Your task to perform on an android device: find snoozed emails in the gmail app Image 0: 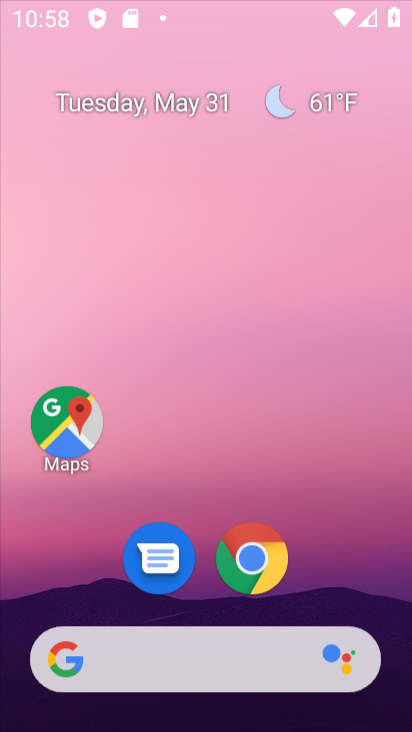
Step 0: click (213, 97)
Your task to perform on an android device: find snoozed emails in the gmail app Image 1: 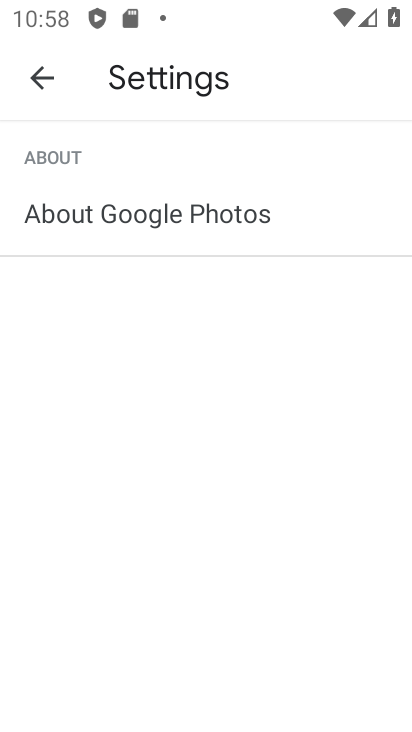
Step 1: press home button
Your task to perform on an android device: find snoozed emails in the gmail app Image 2: 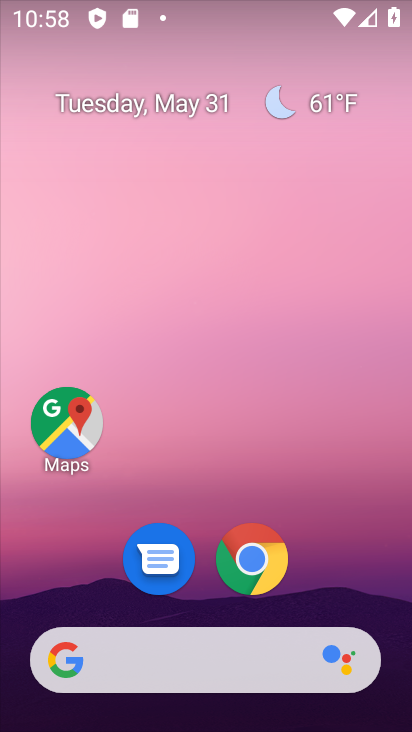
Step 2: drag from (236, 548) to (248, 0)
Your task to perform on an android device: find snoozed emails in the gmail app Image 3: 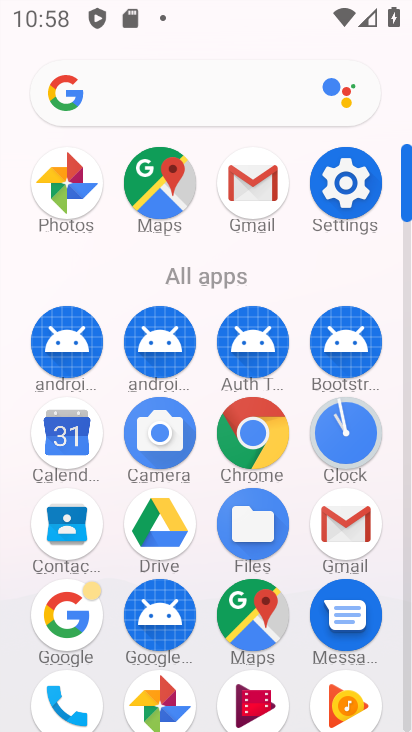
Step 3: click (350, 540)
Your task to perform on an android device: find snoozed emails in the gmail app Image 4: 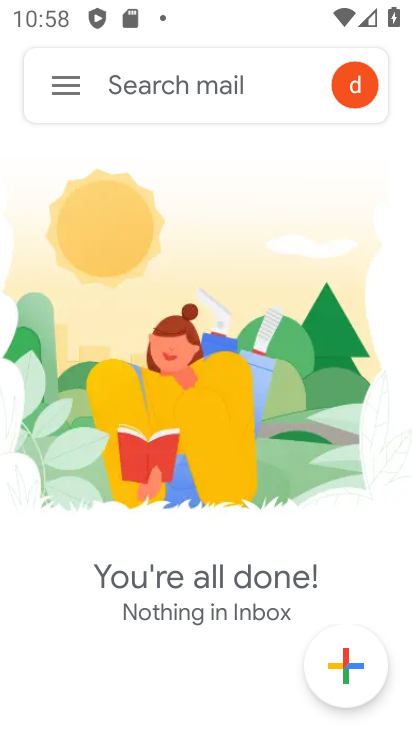
Step 4: click (74, 72)
Your task to perform on an android device: find snoozed emails in the gmail app Image 5: 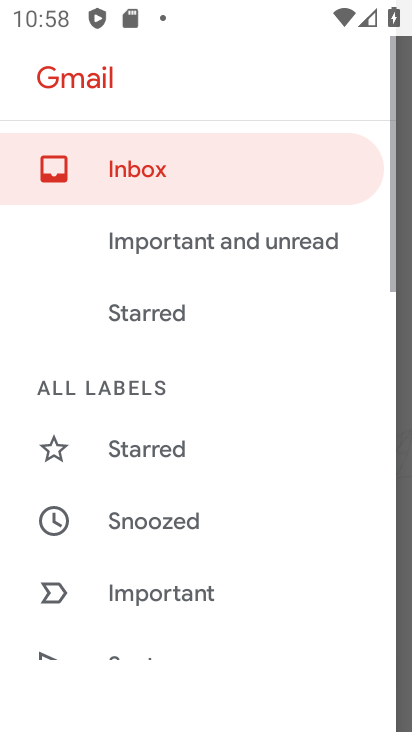
Step 5: click (210, 521)
Your task to perform on an android device: find snoozed emails in the gmail app Image 6: 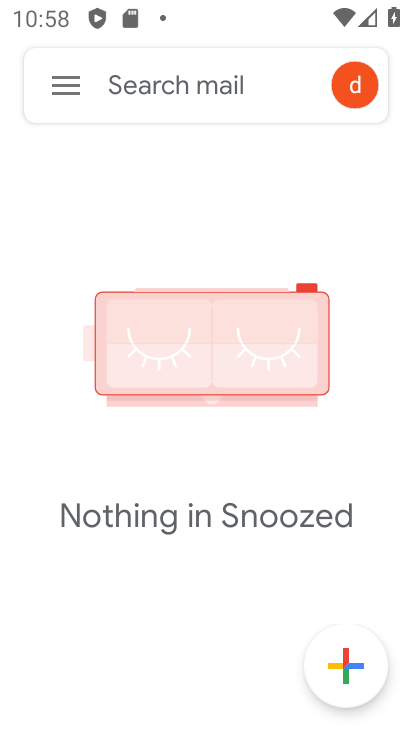
Step 6: task complete